Your task to perform on an android device: Go to accessibility settings Image 0: 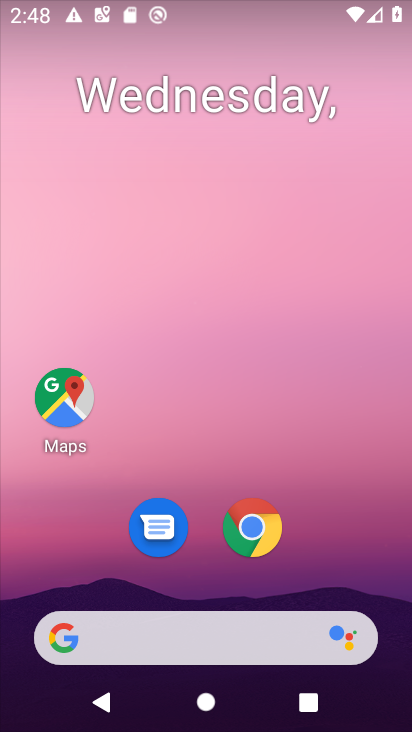
Step 0: drag from (356, 536) to (344, 94)
Your task to perform on an android device: Go to accessibility settings Image 1: 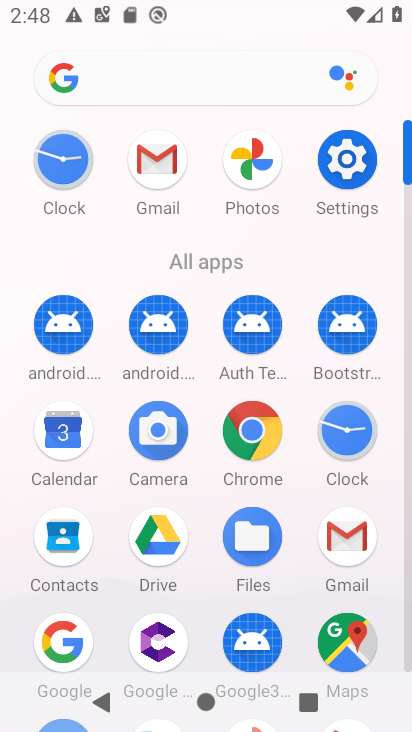
Step 1: click (351, 150)
Your task to perform on an android device: Go to accessibility settings Image 2: 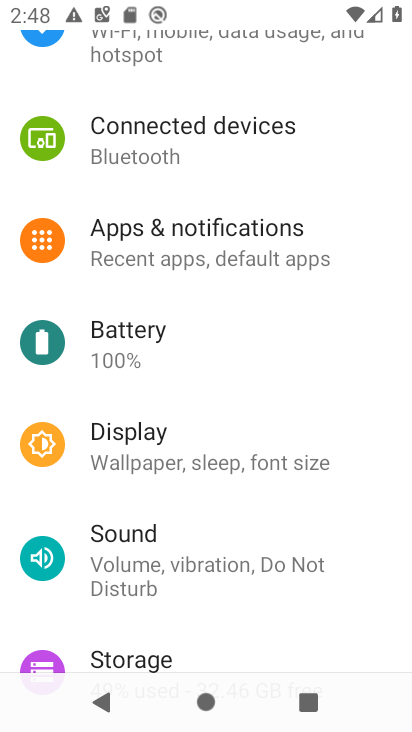
Step 2: drag from (239, 621) to (266, 236)
Your task to perform on an android device: Go to accessibility settings Image 3: 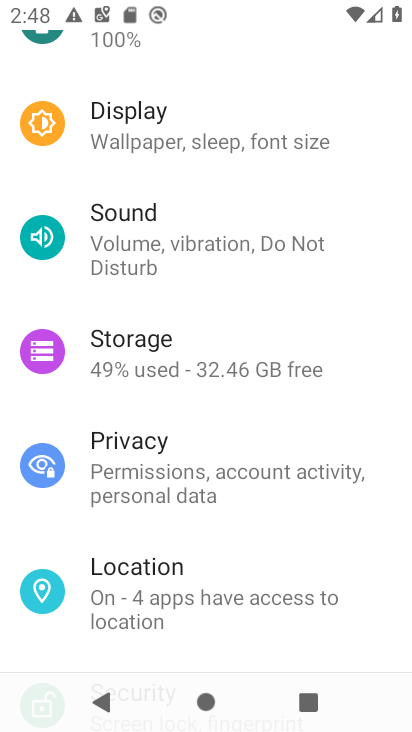
Step 3: drag from (248, 636) to (312, 311)
Your task to perform on an android device: Go to accessibility settings Image 4: 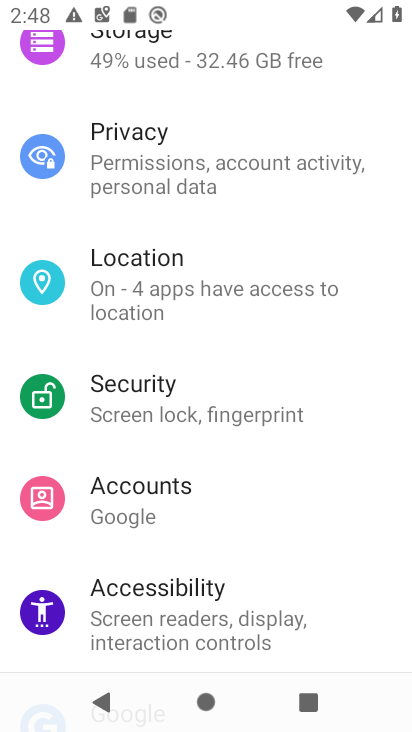
Step 4: click (205, 627)
Your task to perform on an android device: Go to accessibility settings Image 5: 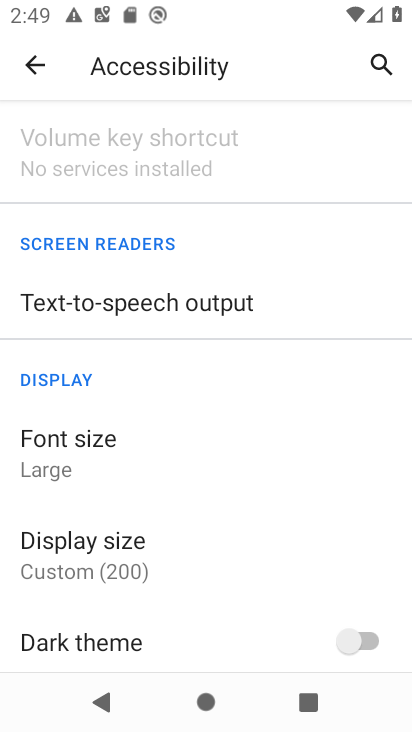
Step 5: task complete